Your task to perform on an android device: Show the shopping cart on target.com. Search for razer naga on target.com, select the first entry, add it to the cart, then select checkout. Image 0: 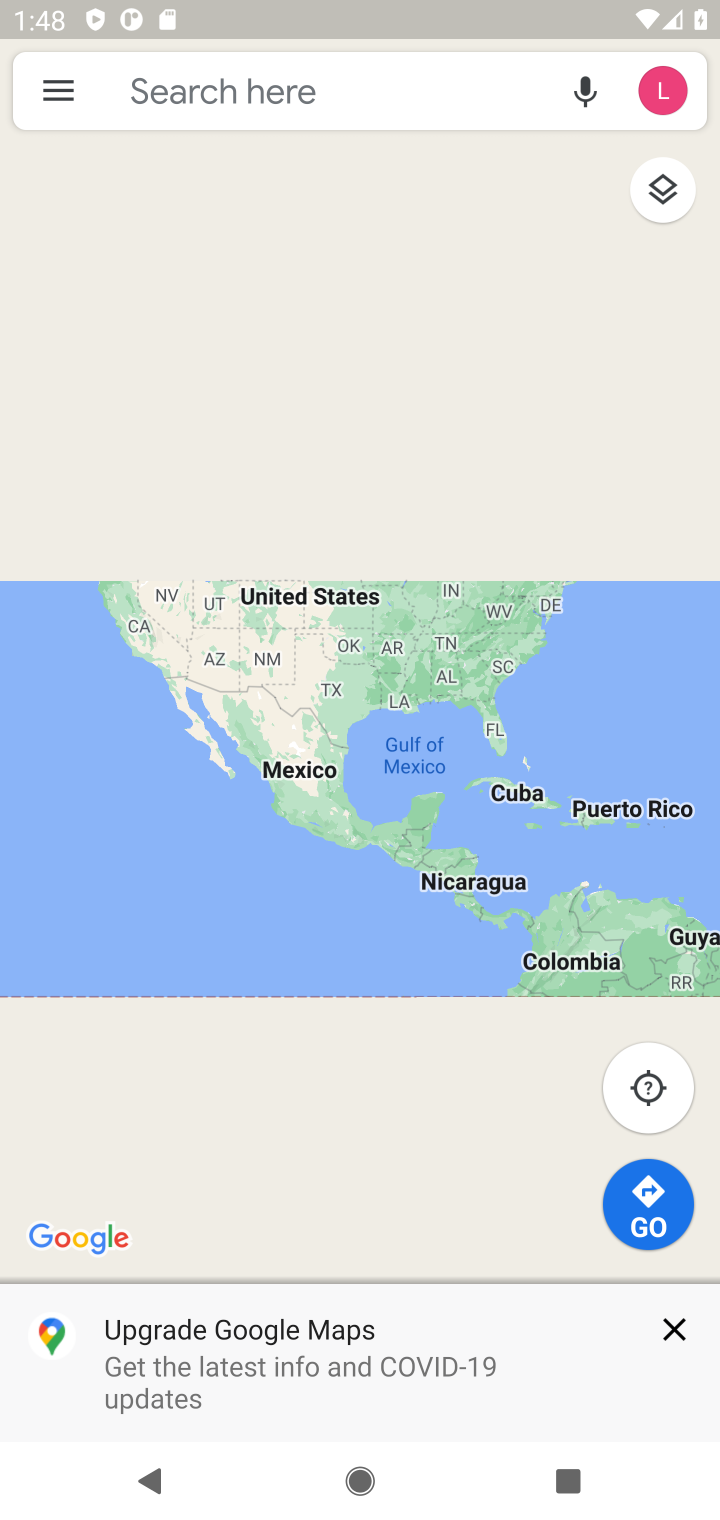
Step 0: press home button
Your task to perform on an android device: Show the shopping cart on target.com. Search for razer naga on target.com, select the first entry, add it to the cart, then select checkout. Image 1: 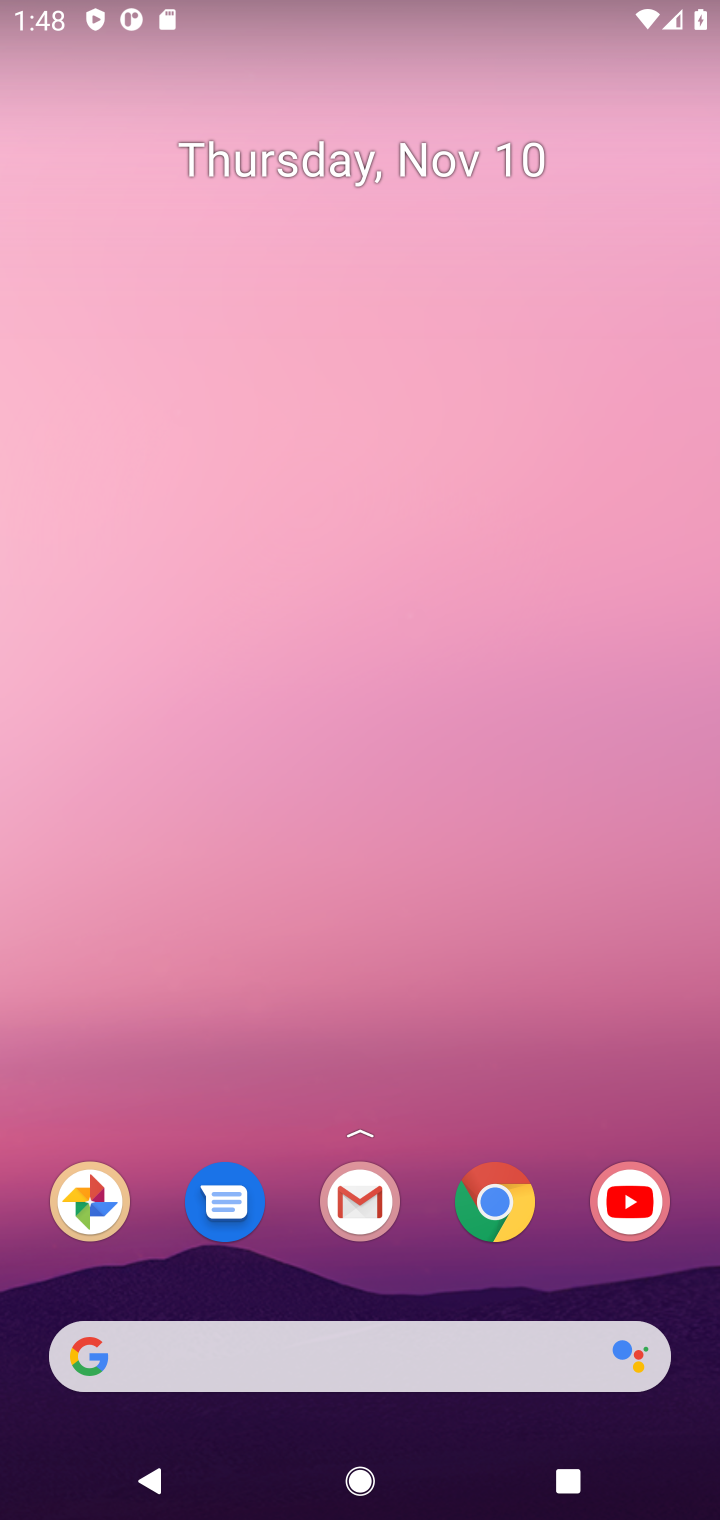
Step 1: click (509, 1206)
Your task to perform on an android device: Show the shopping cart on target.com. Search for razer naga on target.com, select the first entry, add it to the cart, then select checkout. Image 2: 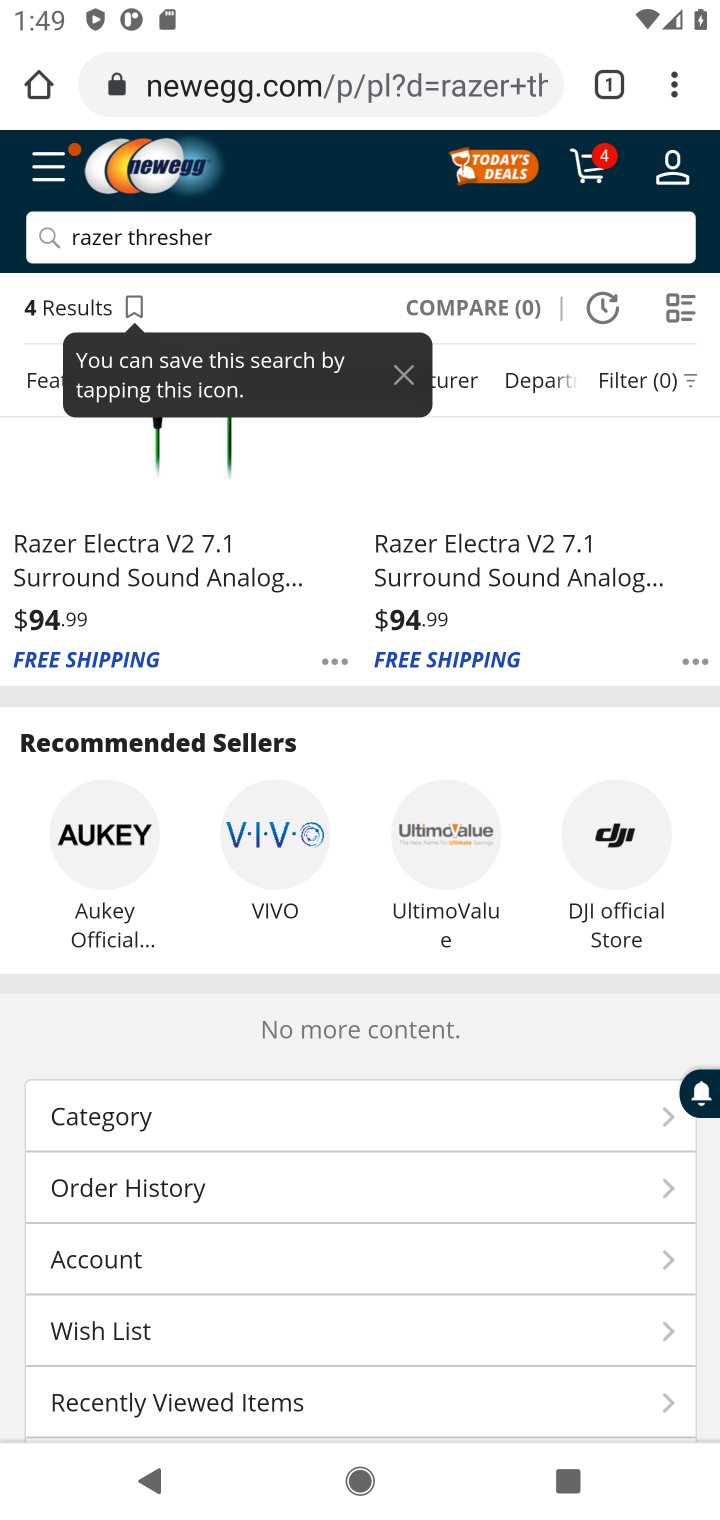
Step 2: click (349, 79)
Your task to perform on an android device: Show the shopping cart on target.com. Search for razer naga on target.com, select the first entry, add it to the cart, then select checkout. Image 3: 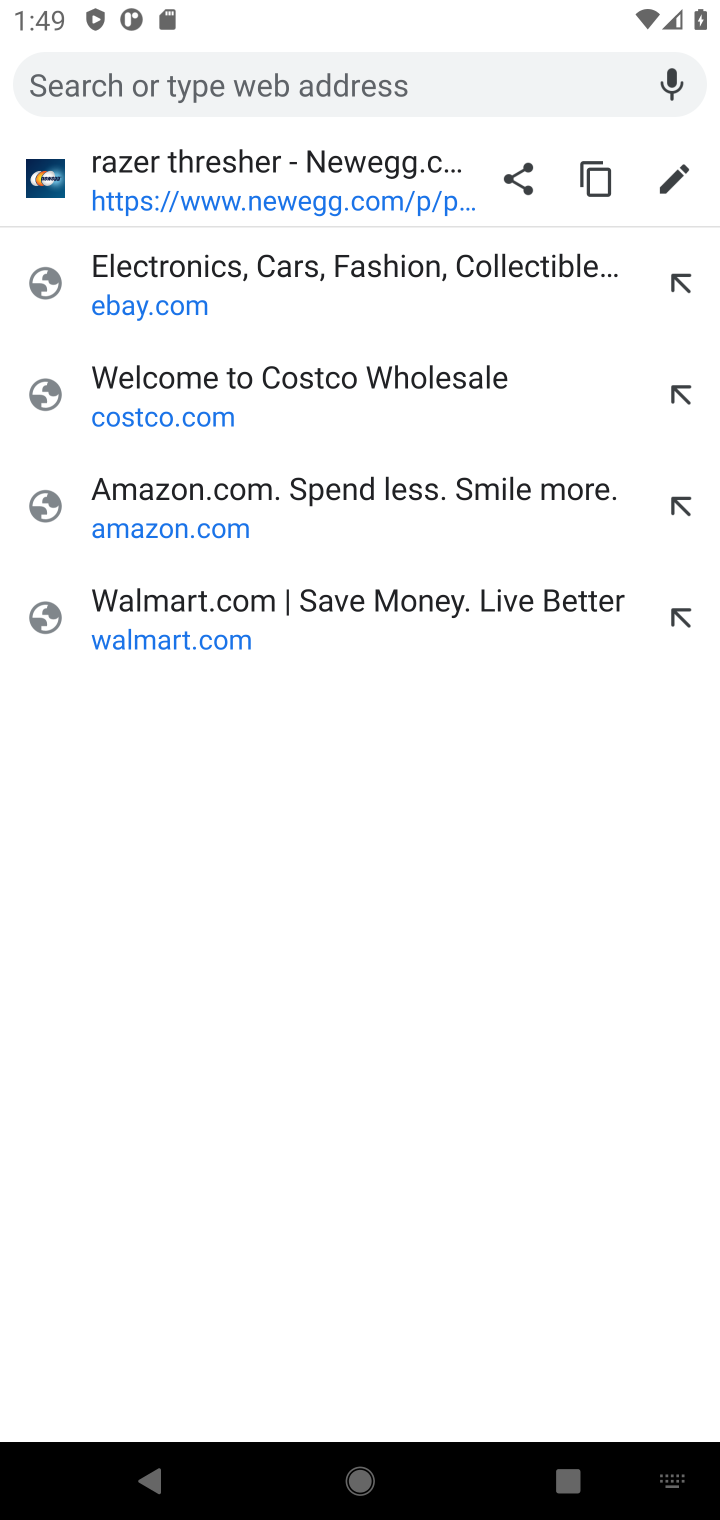
Step 3: type "target.com"
Your task to perform on an android device: Show the shopping cart on target.com. Search for razer naga on target.com, select the first entry, add it to the cart, then select checkout. Image 4: 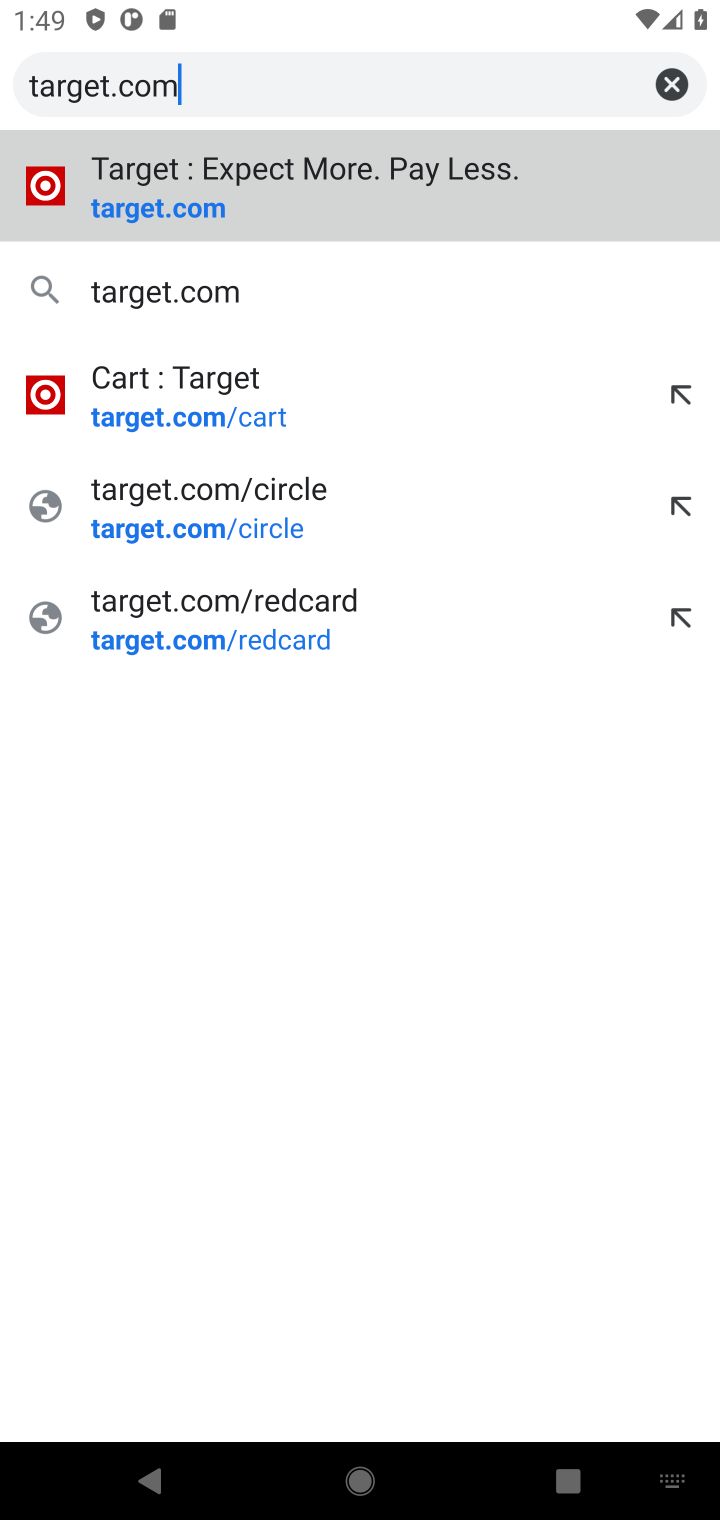
Step 4: click (310, 179)
Your task to perform on an android device: Show the shopping cart on target.com. Search for razer naga on target.com, select the first entry, add it to the cart, then select checkout. Image 5: 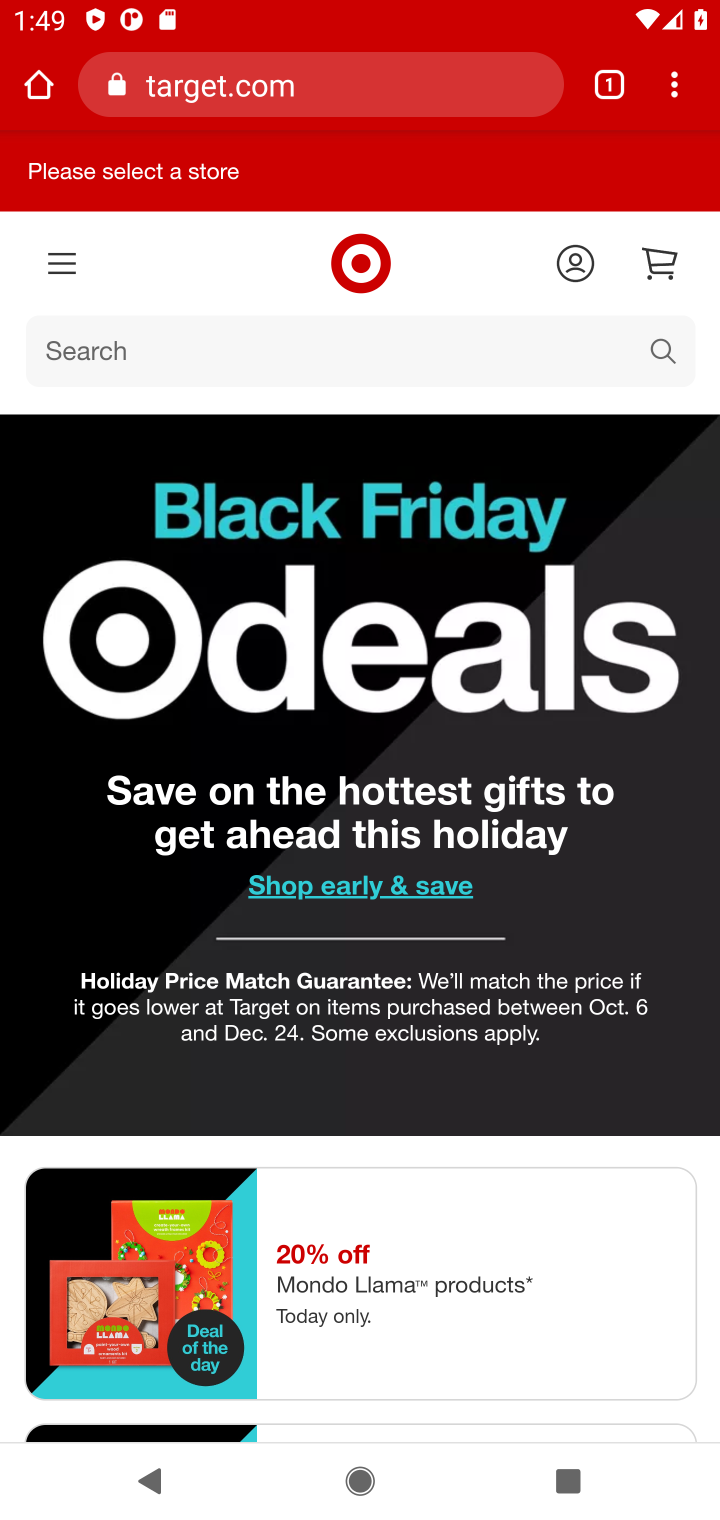
Step 5: click (663, 339)
Your task to perform on an android device: Show the shopping cart on target.com. Search for razer naga on target.com, select the first entry, add it to the cart, then select checkout. Image 6: 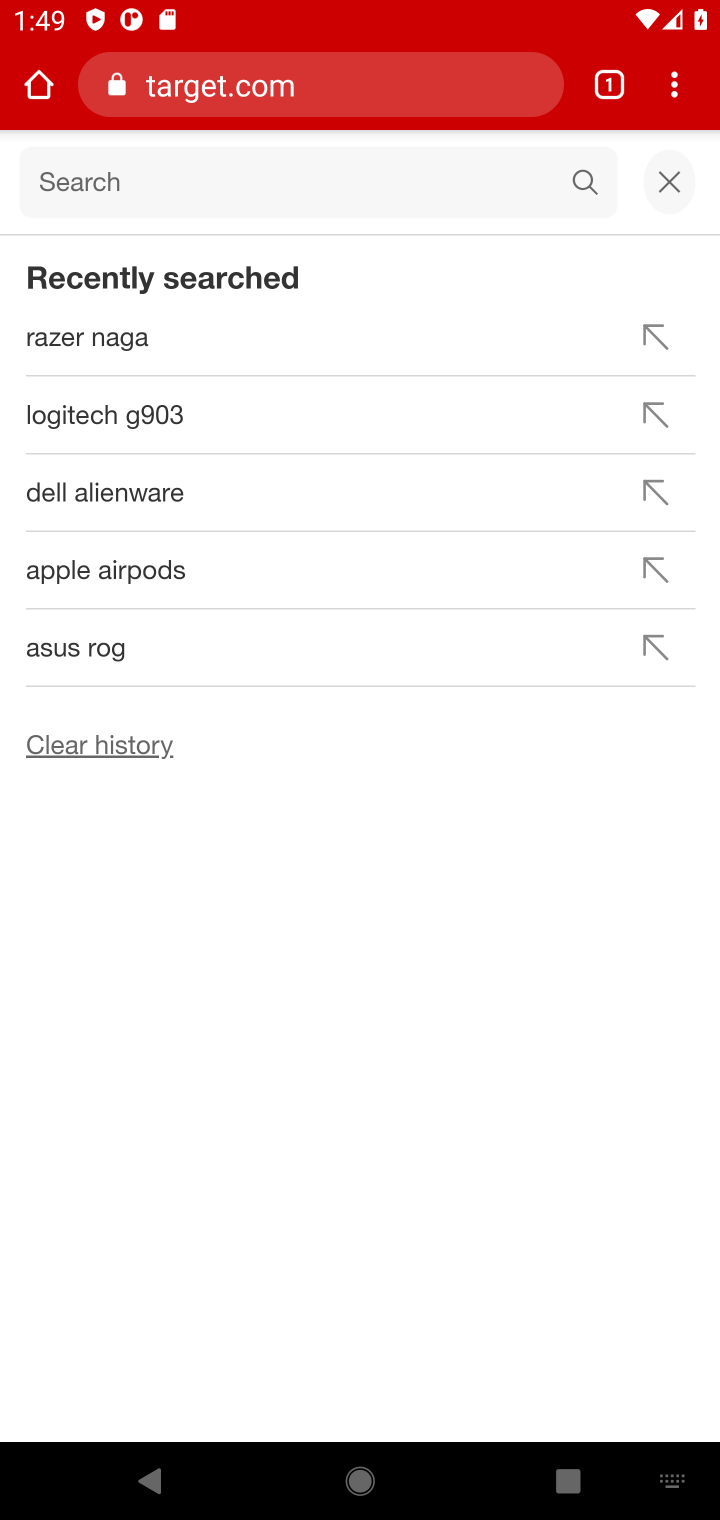
Step 6: type "razer naga"
Your task to perform on an android device: Show the shopping cart on target.com. Search for razer naga on target.com, select the first entry, add it to the cart, then select checkout. Image 7: 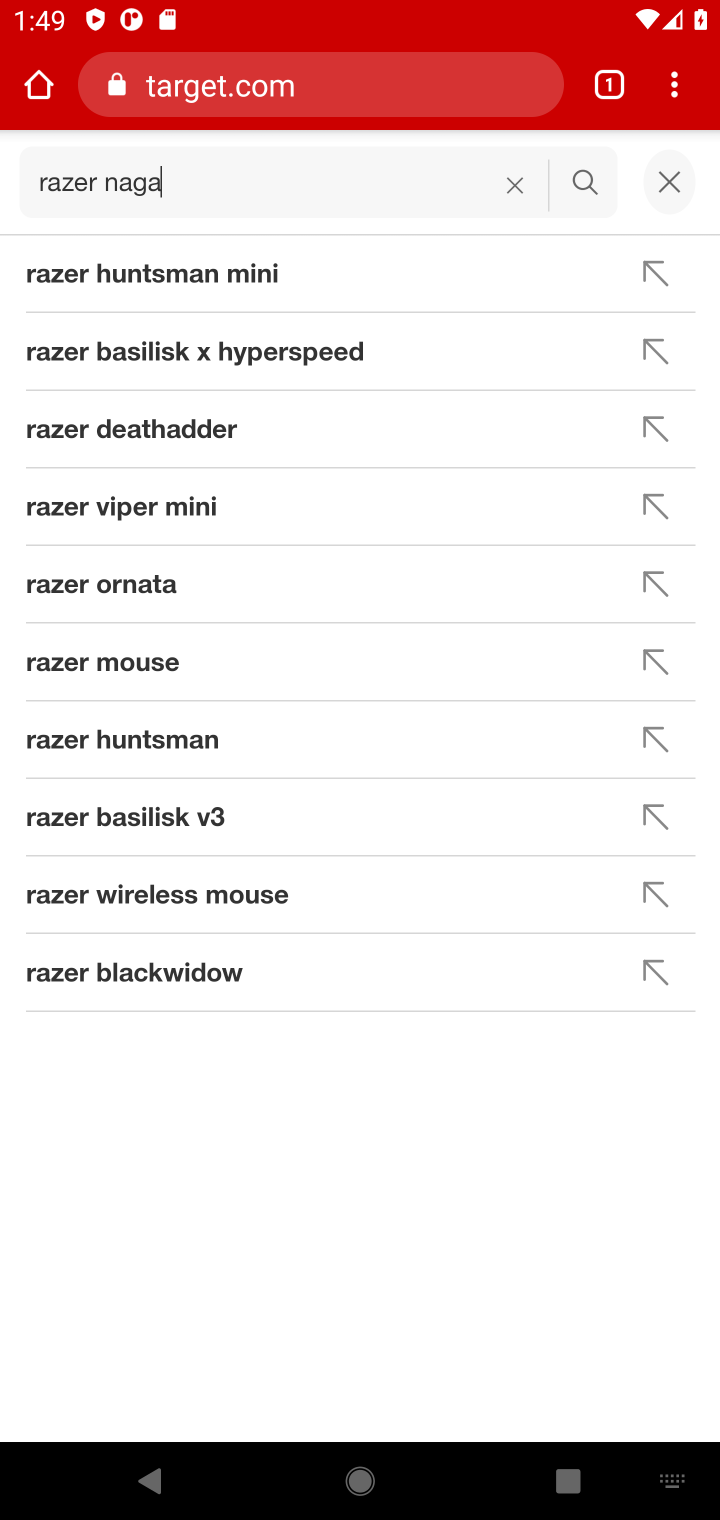
Step 7: click (618, 1184)
Your task to perform on an android device: Show the shopping cart on target.com. Search for razer naga on target.com, select the first entry, add it to the cart, then select checkout. Image 8: 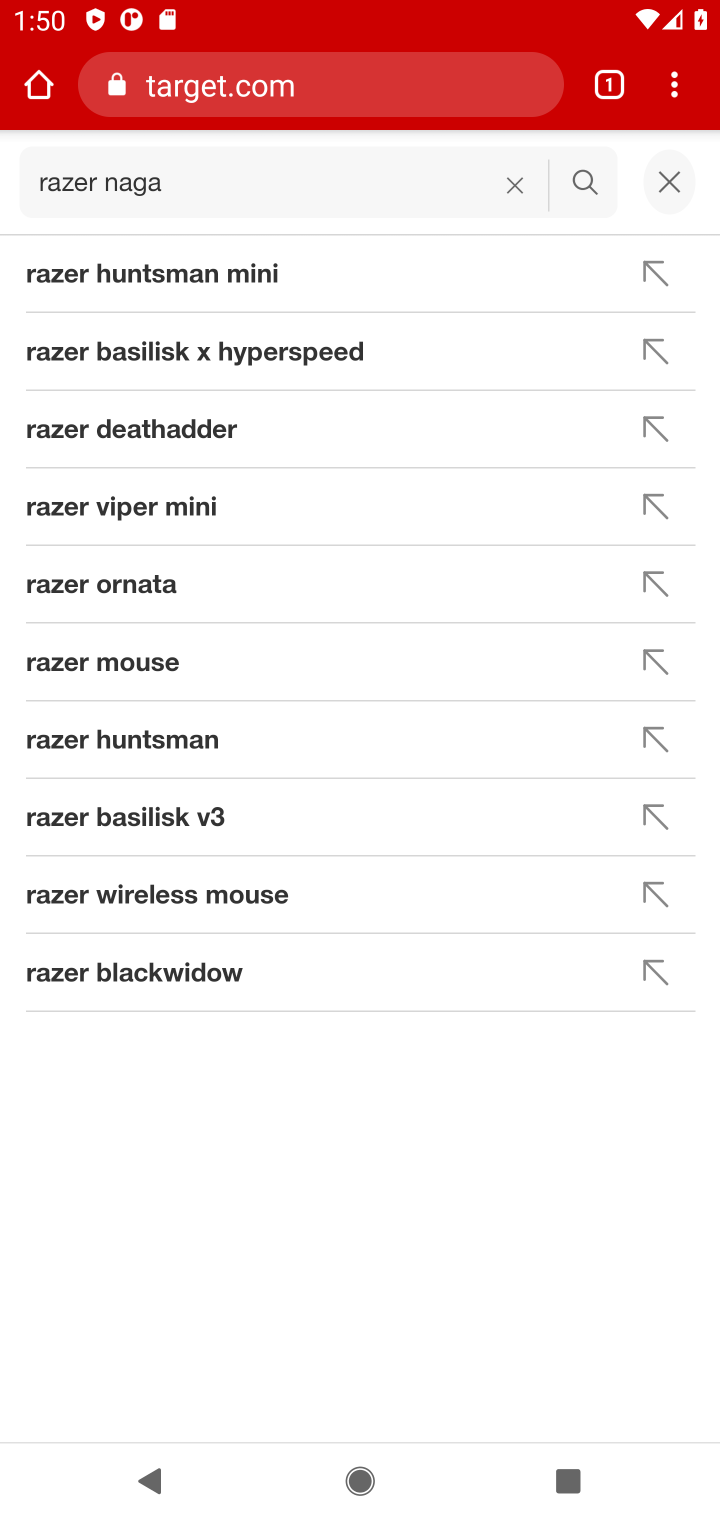
Step 8: click (618, 1184)
Your task to perform on an android device: Show the shopping cart on target.com. Search for razer naga on target.com, select the first entry, add it to the cart, then select checkout. Image 9: 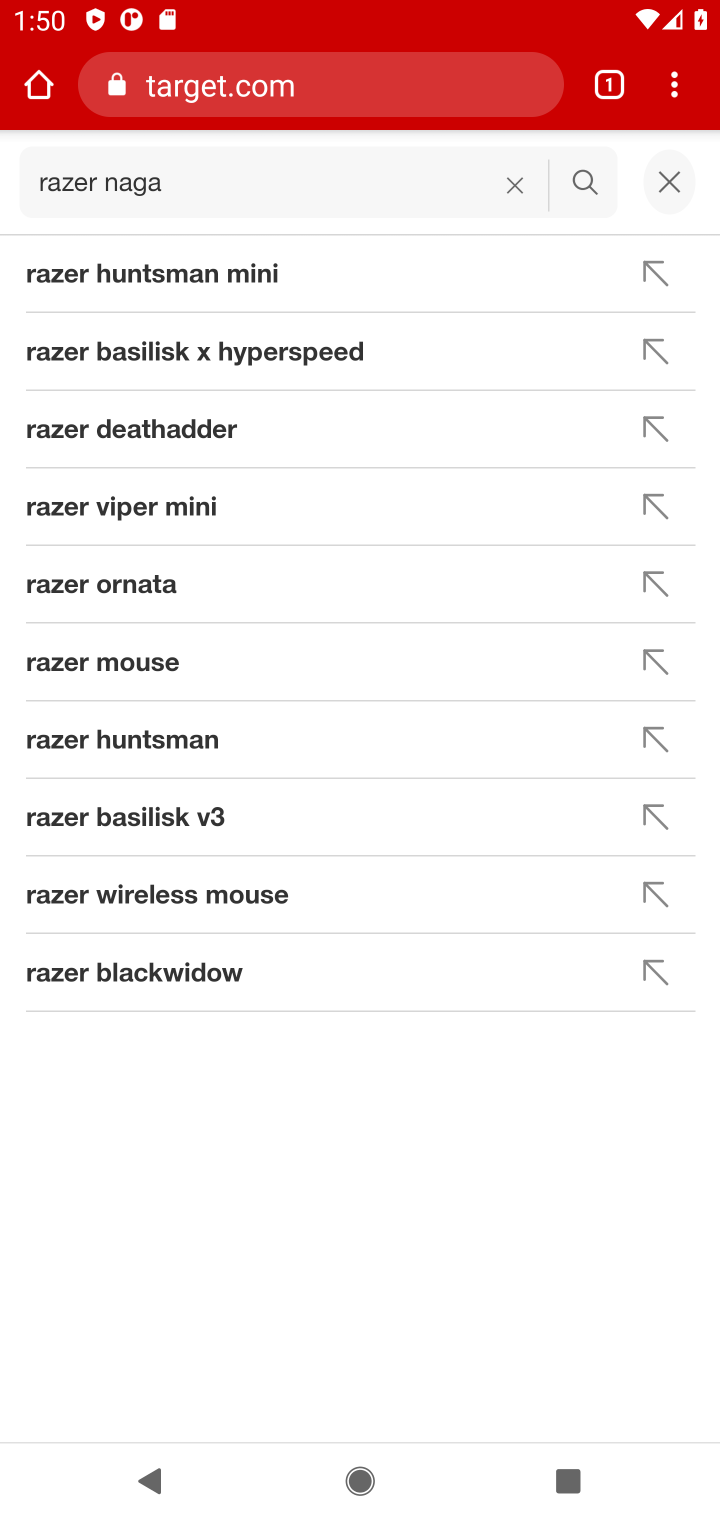
Step 9: click (618, 1184)
Your task to perform on an android device: Show the shopping cart on target.com. Search for razer naga on target.com, select the first entry, add it to the cart, then select checkout. Image 10: 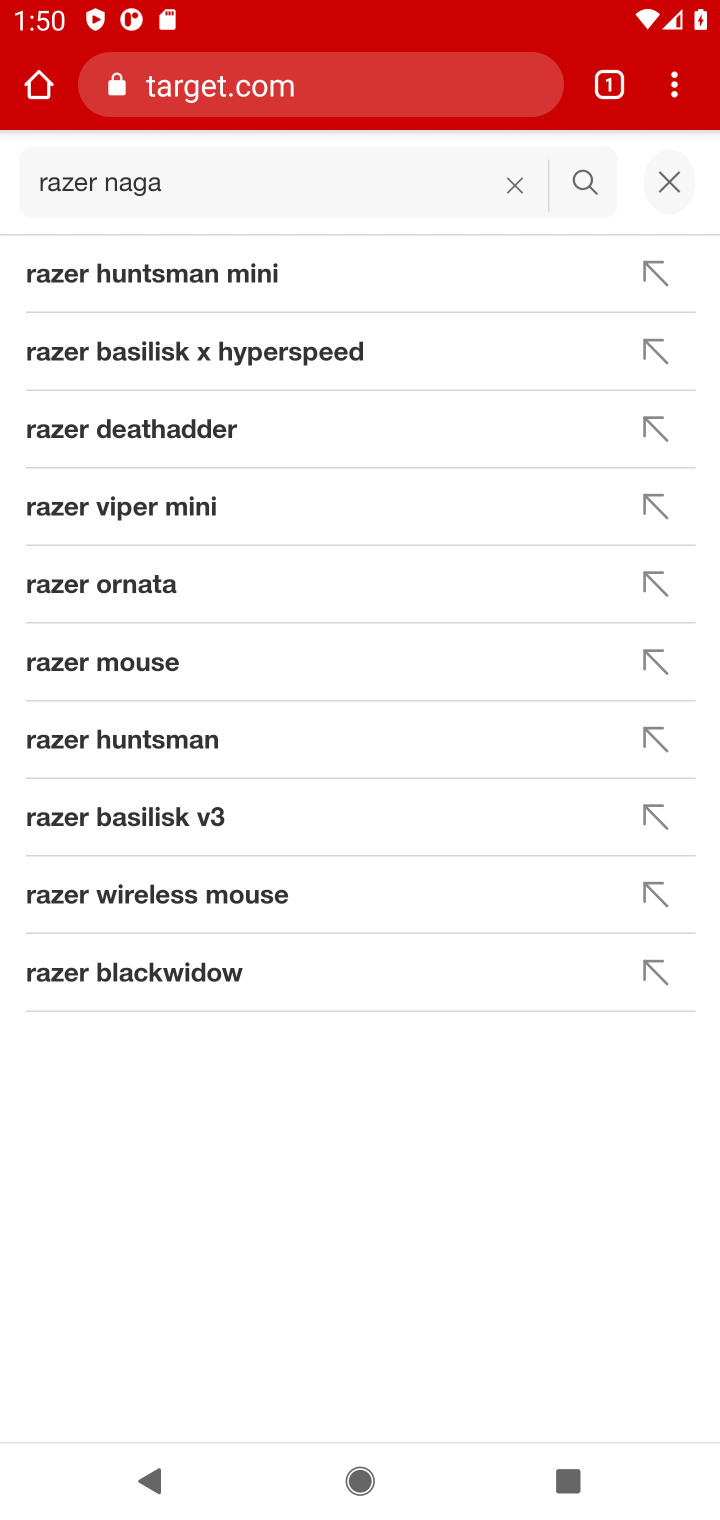
Step 10: click (618, 1184)
Your task to perform on an android device: Show the shopping cart on target.com. Search for razer naga on target.com, select the first entry, add it to the cart, then select checkout. Image 11: 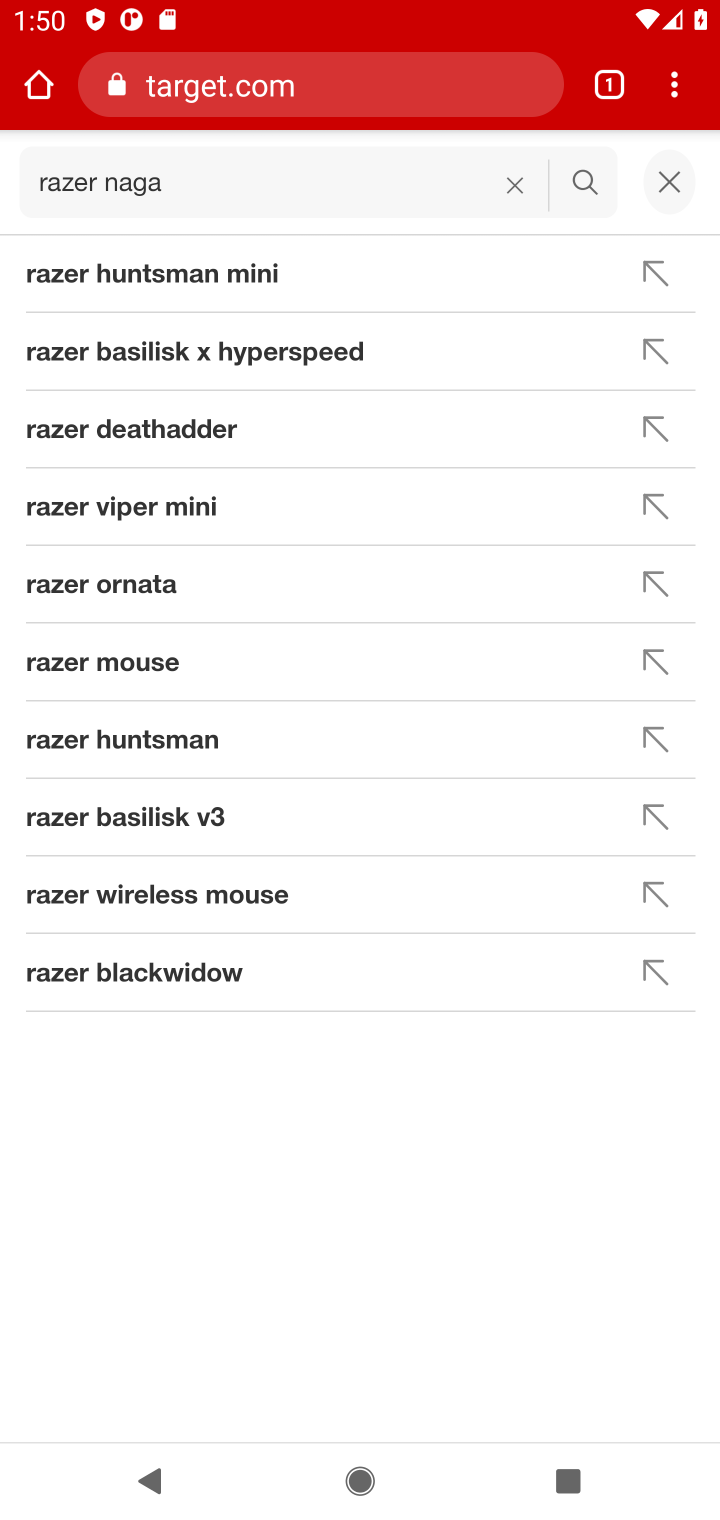
Step 11: click (618, 1184)
Your task to perform on an android device: Show the shopping cart on target.com. Search for razer naga on target.com, select the first entry, add it to the cart, then select checkout. Image 12: 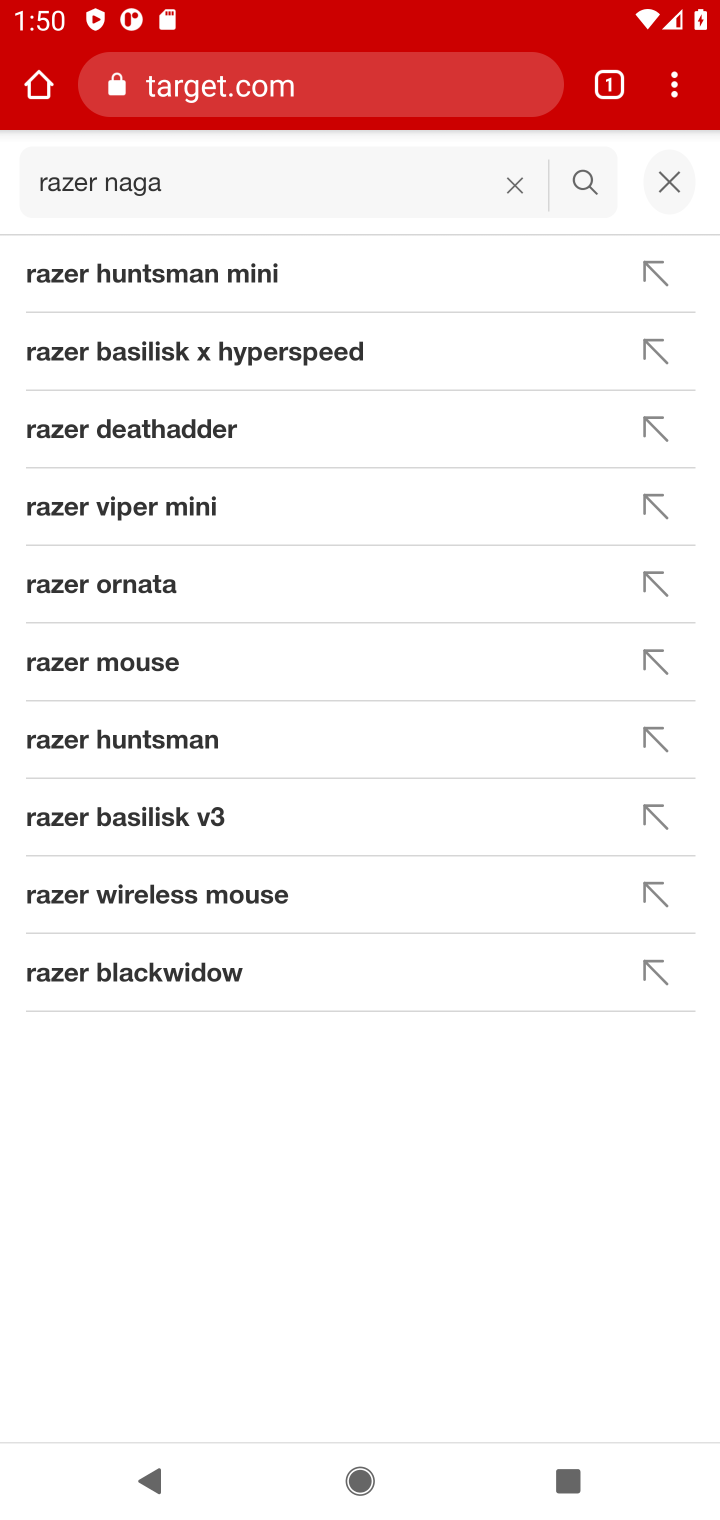
Step 12: task complete